Your task to perform on an android device: Open maps Image 0: 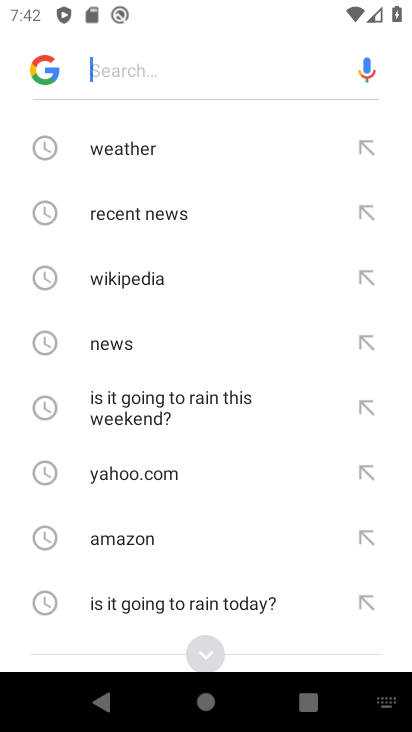
Step 0: press home button
Your task to perform on an android device: Open maps Image 1: 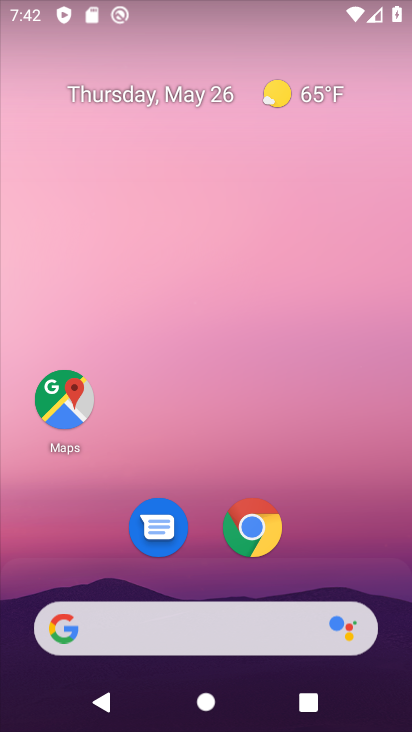
Step 1: drag from (337, 515) to (262, 80)
Your task to perform on an android device: Open maps Image 2: 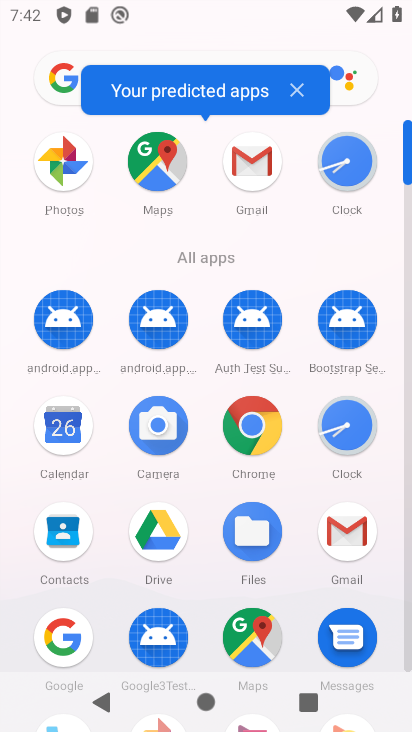
Step 2: click (151, 170)
Your task to perform on an android device: Open maps Image 3: 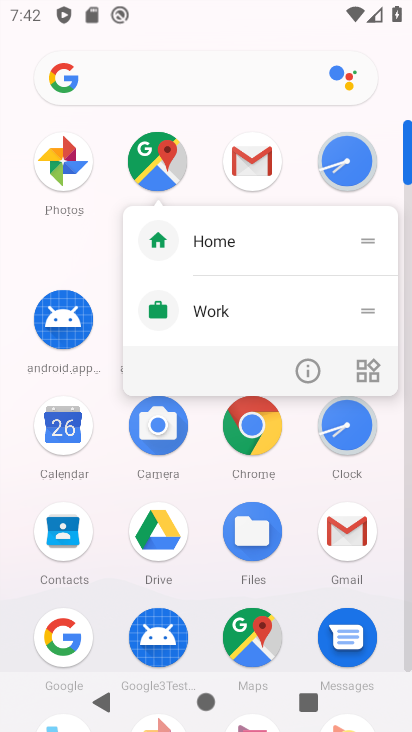
Step 3: click (151, 168)
Your task to perform on an android device: Open maps Image 4: 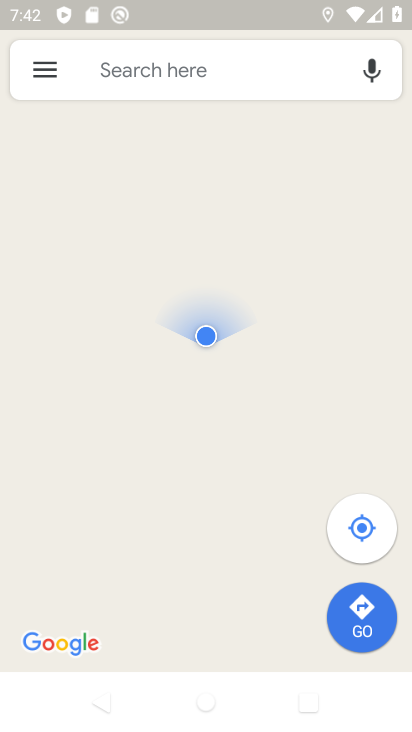
Step 4: task complete